Your task to perform on an android device: change timer sound Image 0: 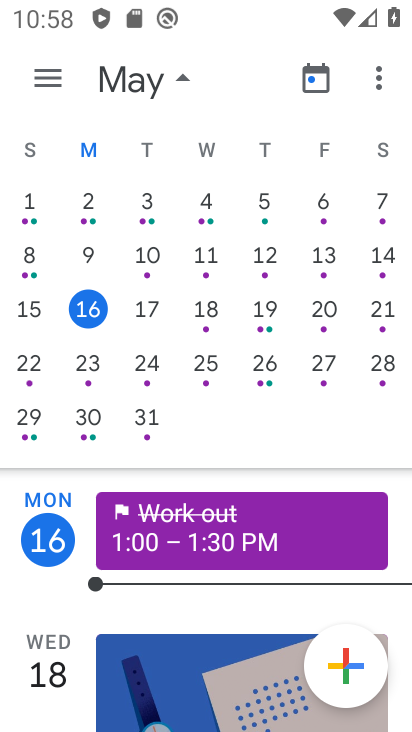
Step 0: press home button
Your task to perform on an android device: change timer sound Image 1: 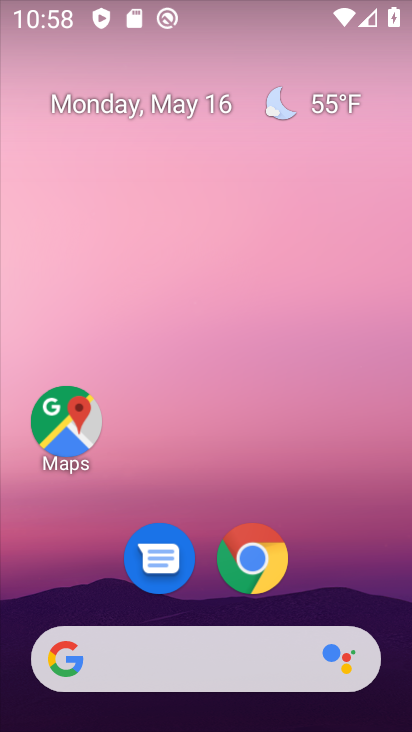
Step 1: drag from (75, 567) to (147, 96)
Your task to perform on an android device: change timer sound Image 2: 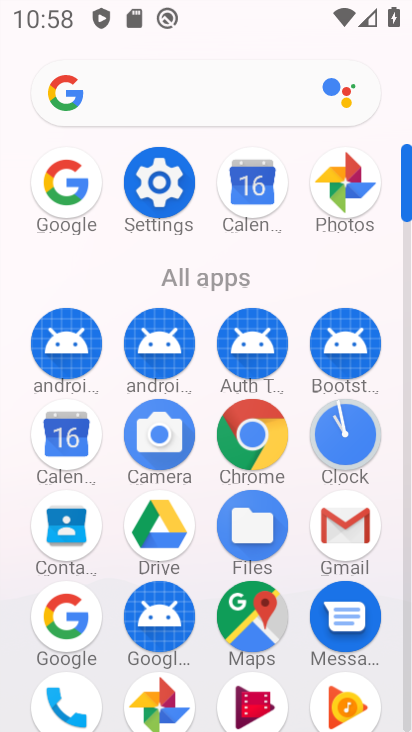
Step 2: click (357, 431)
Your task to perform on an android device: change timer sound Image 3: 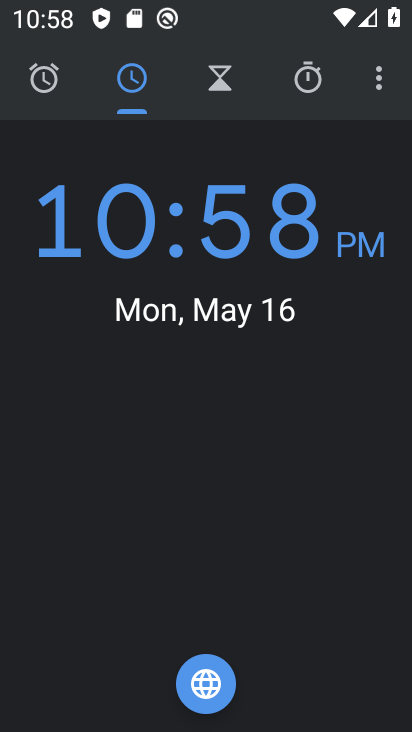
Step 3: click (375, 82)
Your task to perform on an android device: change timer sound Image 4: 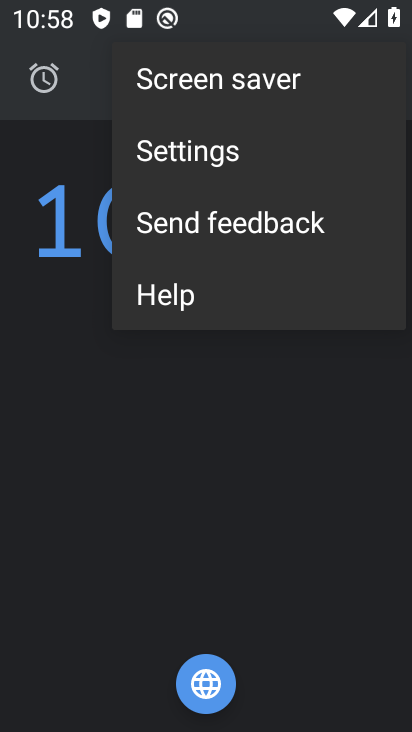
Step 4: click (205, 159)
Your task to perform on an android device: change timer sound Image 5: 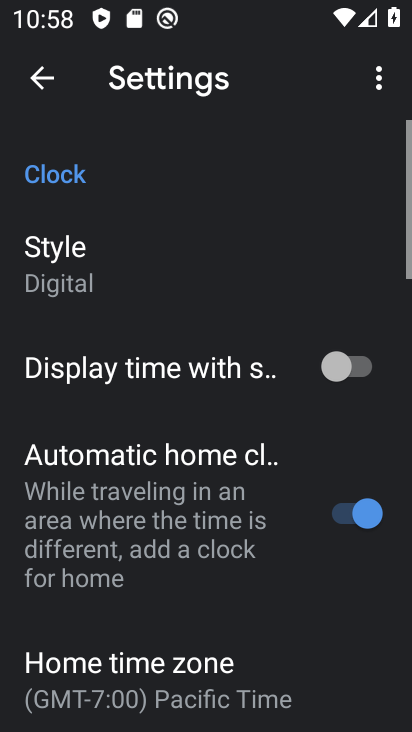
Step 5: drag from (195, 539) to (194, 162)
Your task to perform on an android device: change timer sound Image 6: 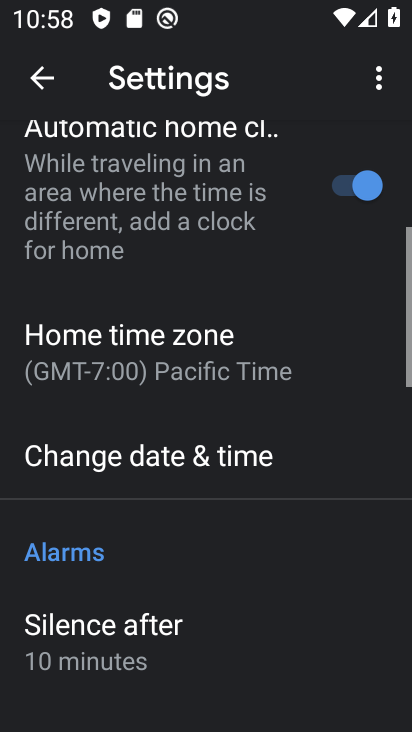
Step 6: drag from (212, 617) to (203, 232)
Your task to perform on an android device: change timer sound Image 7: 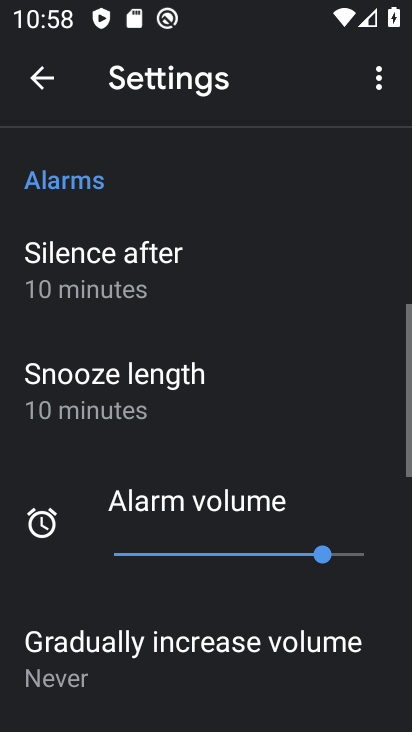
Step 7: drag from (226, 611) to (243, 131)
Your task to perform on an android device: change timer sound Image 8: 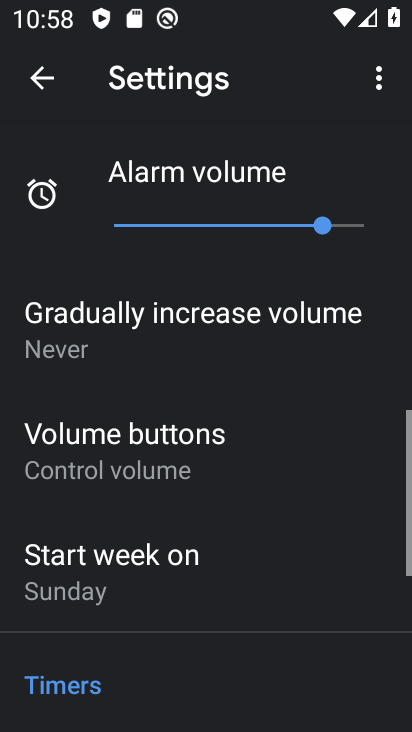
Step 8: drag from (220, 640) to (248, 240)
Your task to perform on an android device: change timer sound Image 9: 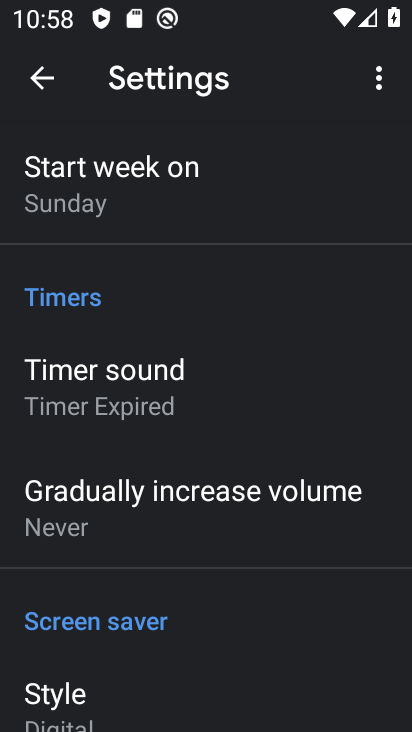
Step 9: click (179, 392)
Your task to perform on an android device: change timer sound Image 10: 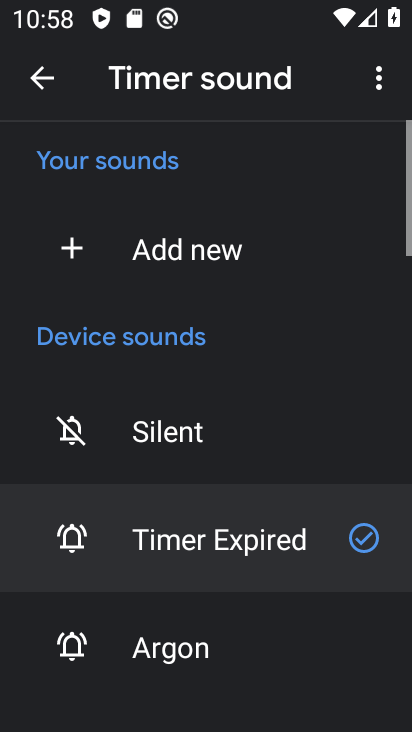
Step 10: click (194, 669)
Your task to perform on an android device: change timer sound Image 11: 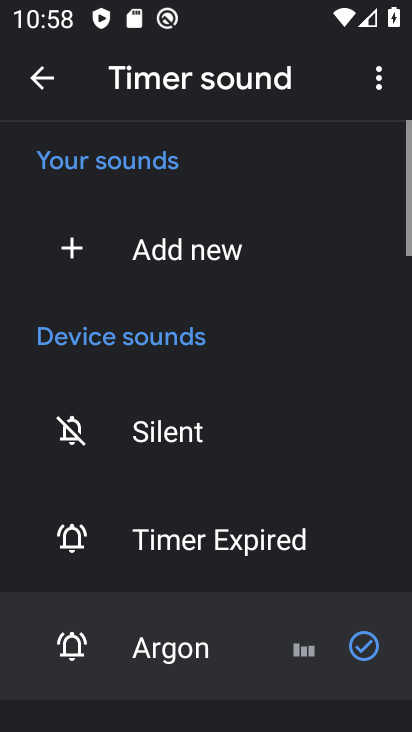
Step 11: task complete